Your task to perform on an android device: toggle location history Image 0: 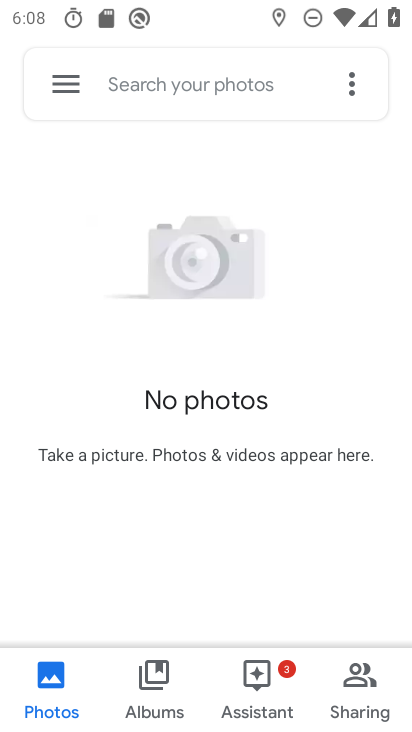
Step 0: press back button
Your task to perform on an android device: toggle location history Image 1: 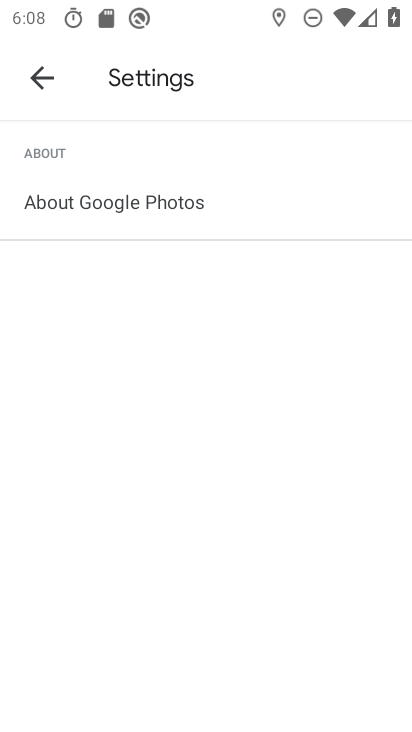
Step 1: press back button
Your task to perform on an android device: toggle location history Image 2: 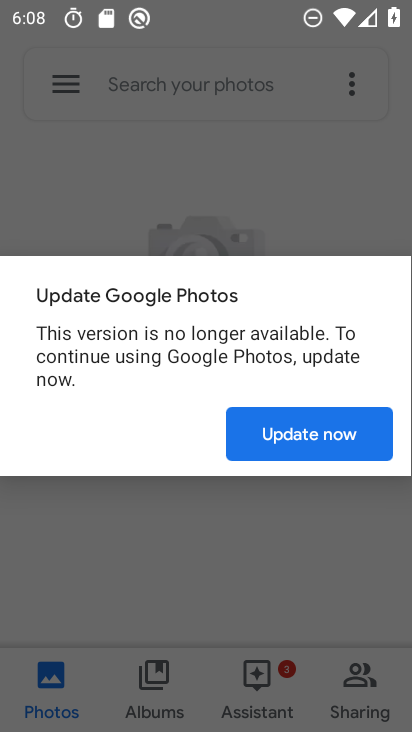
Step 2: press home button
Your task to perform on an android device: toggle location history Image 3: 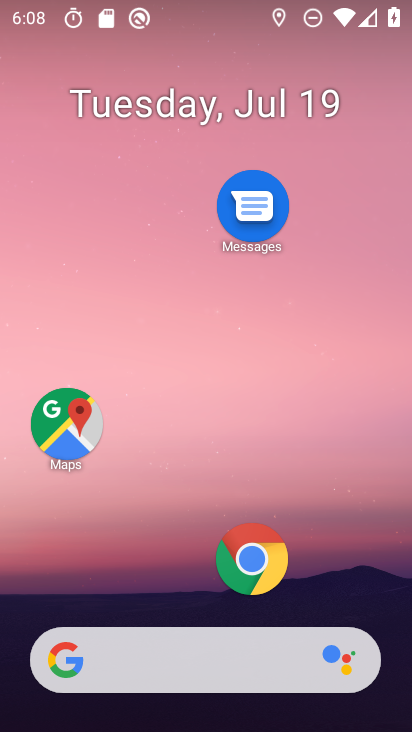
Step 3: drag from (135, 565) to (188, 51)
Your task to perform on an android device: toggle location history Image 4: 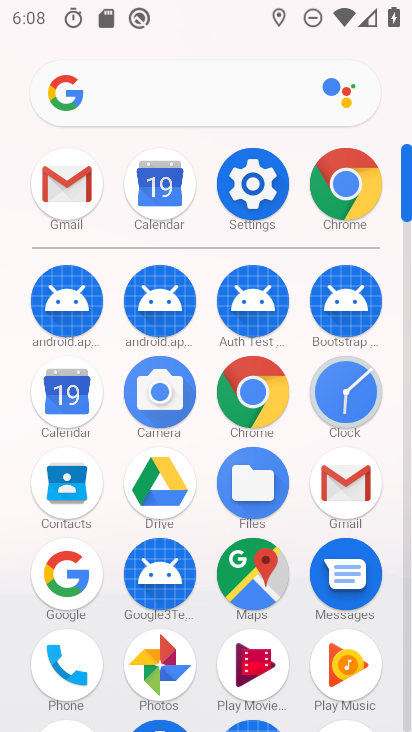
Step 4: click (270, 185)
Your task to perform on an android device: toggle location history Image 5: 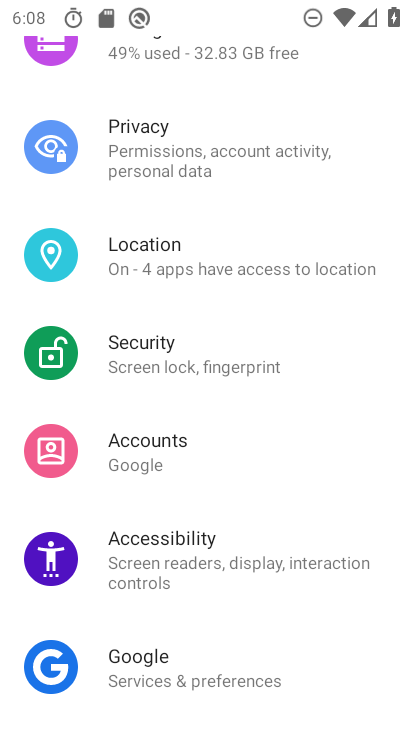
Step 5: click (177, 257)
Your task to perform on an android device: toggle location history Image 6: 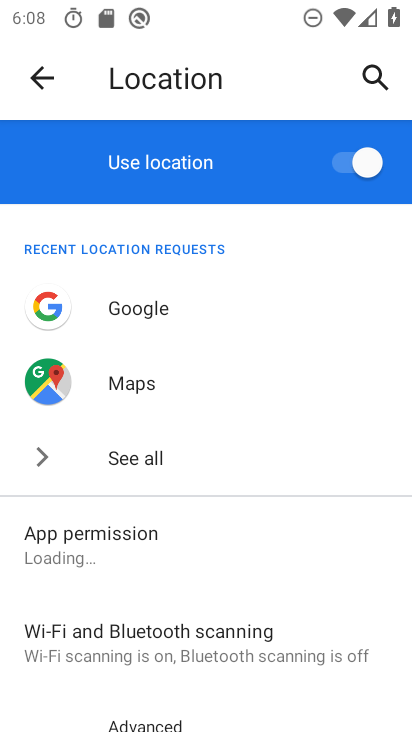
Step 6: drag from (266, 670) to (322, 271)
Your task to perform on an android device: toggle location history Image 7: 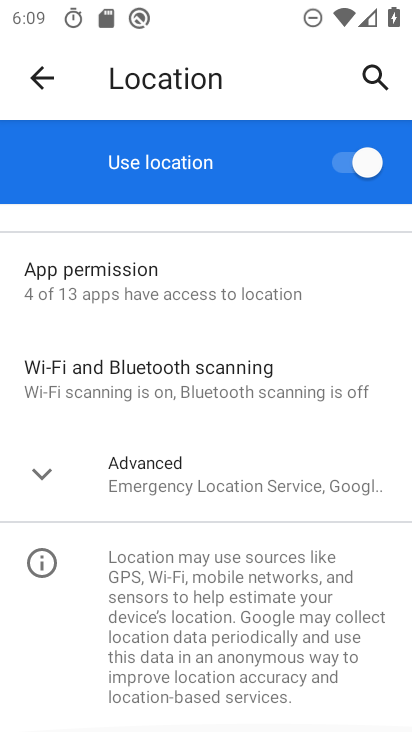
Step 7: click (159, 479)
Your task to perform on an android device: toggle location history Image 8: 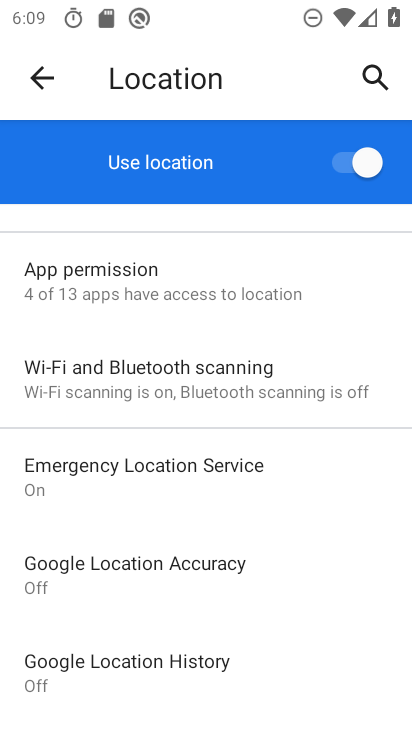
Step 8: click (120, 676)
Your task to perform on an android device: toggle location history Image 9: 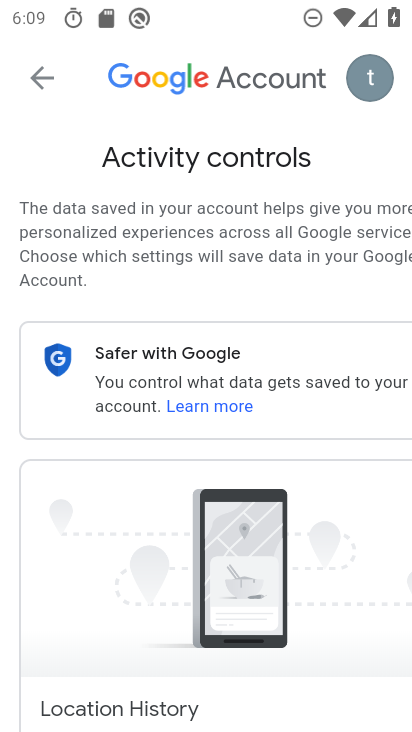
Step 9: drag from (128, 639) to (218, 65)
Your task to perform on an android device: toggle location history Image 10: 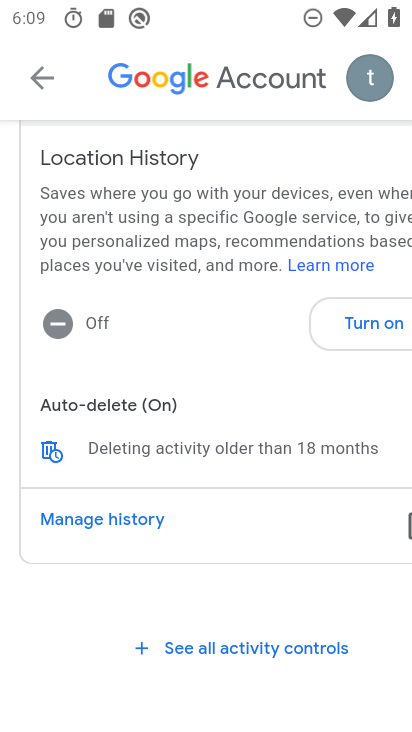
Step 10: click (357, 323)
Your task to perform on an android device: toggle location history Image 11: 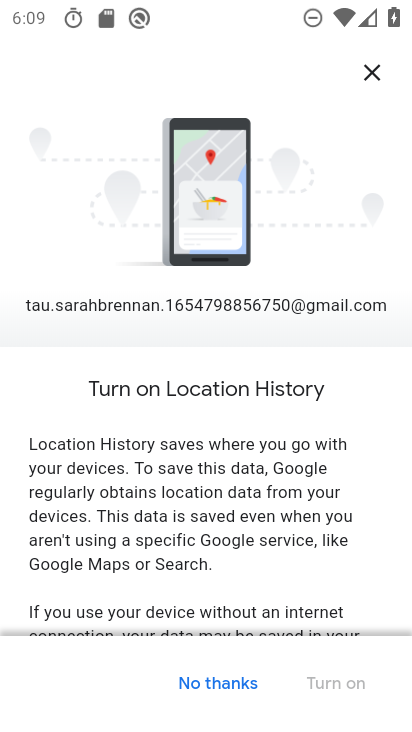
Step 11: drag from (255, 610) to (274, 67)
Your task to perform on an android device: toggle location history Image 12: 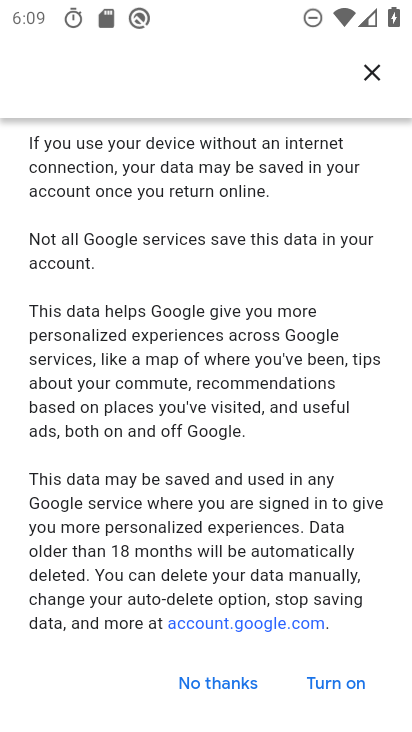
Step 12: click (310, 681)
Your task to perform on an android device: toggle location history Image 13: 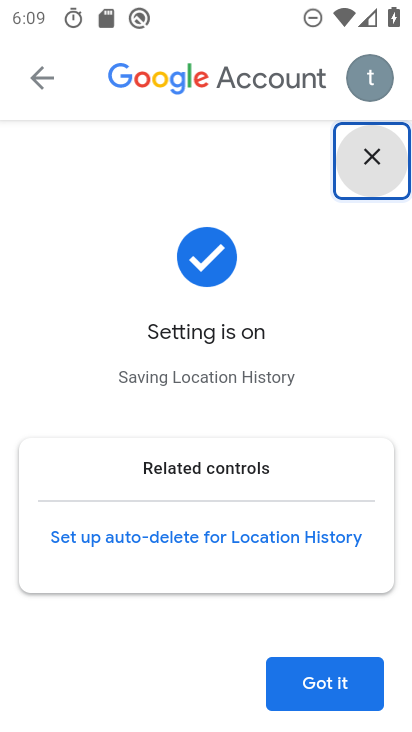
Step 13: click (305, 670)
Your task to perform on an android device: toggle location history Image 14: 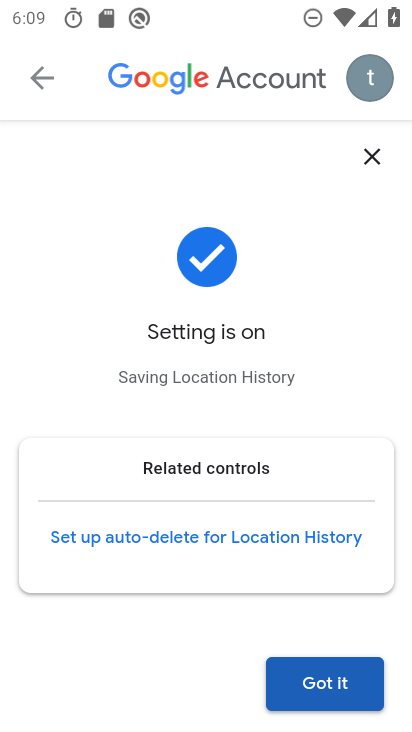
Step 14: click (307, 685)
Your task to perform on an android device: toggle location history Image 15: 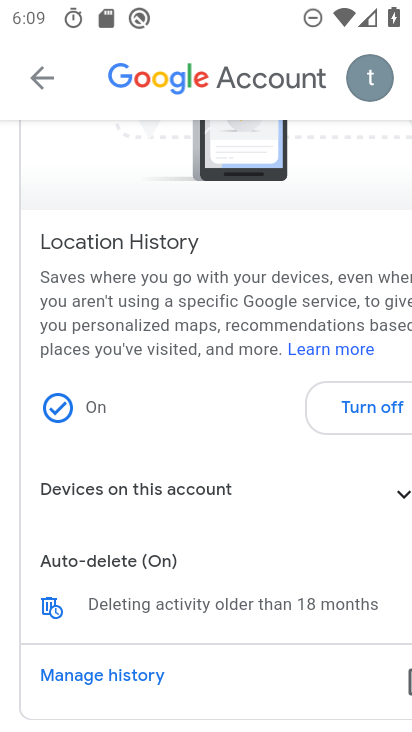
Step 15: task complete